Your task to perform on an android device: install app "Venmo" Image 0: 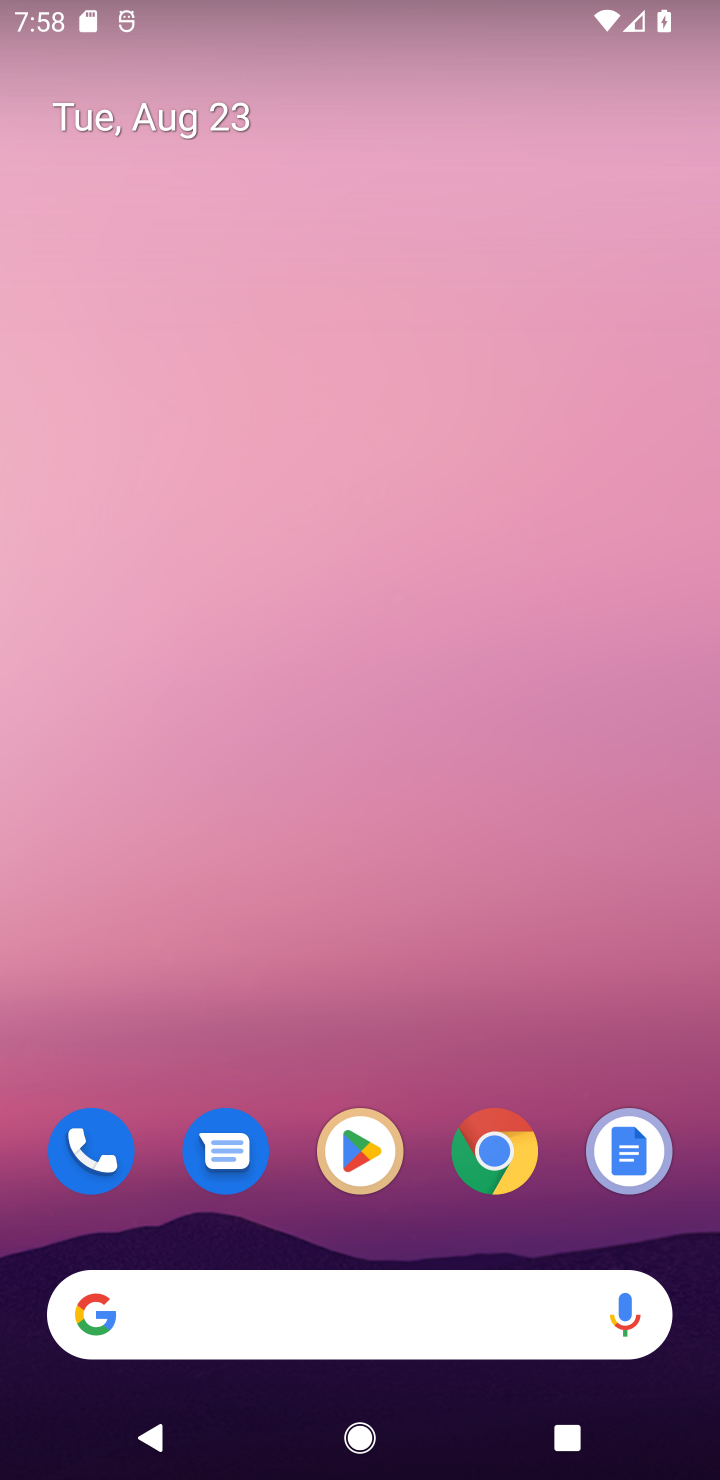
Step 0: click (365, 1149)
Your task to perform on an android device: install app "Venmo" Image 1: 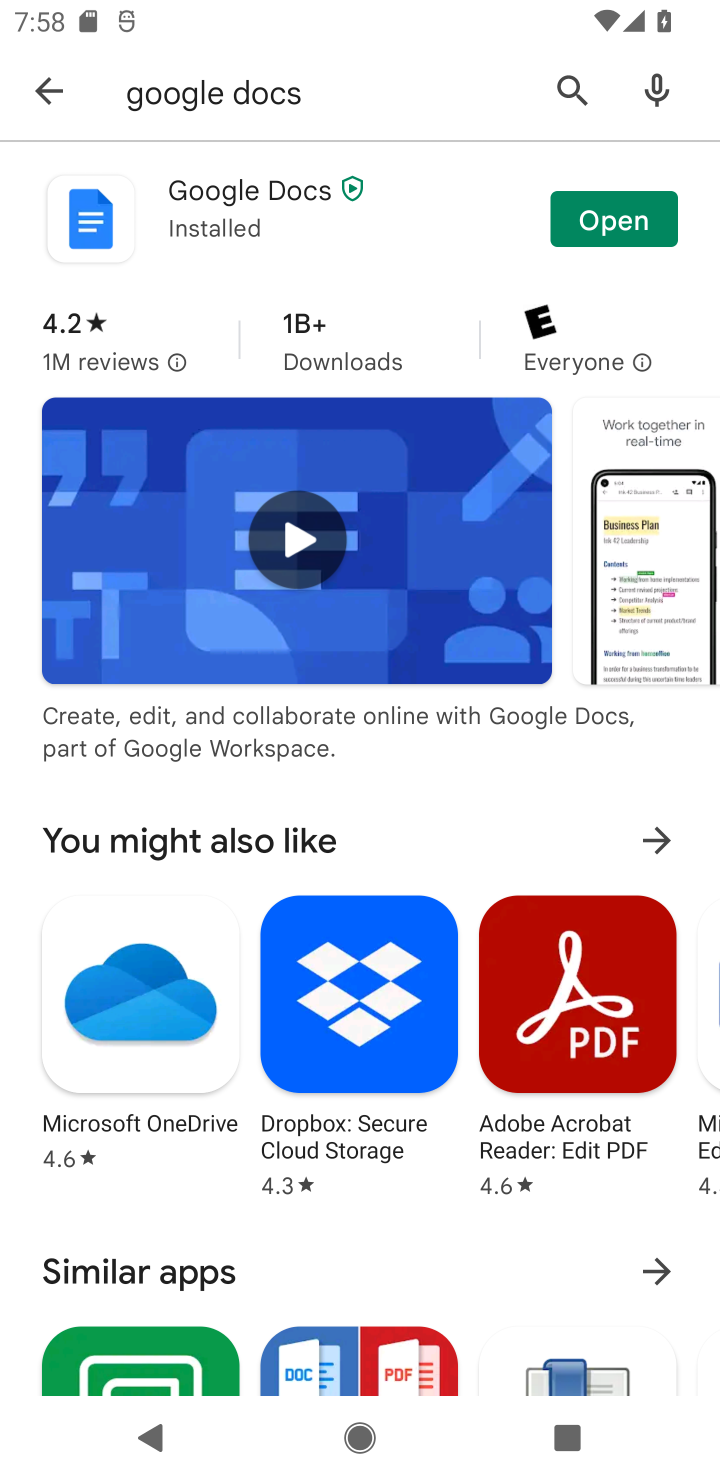
Step 1: click (576, 88)
Your task to perform on an android device: install app "Venmo" Image 2: 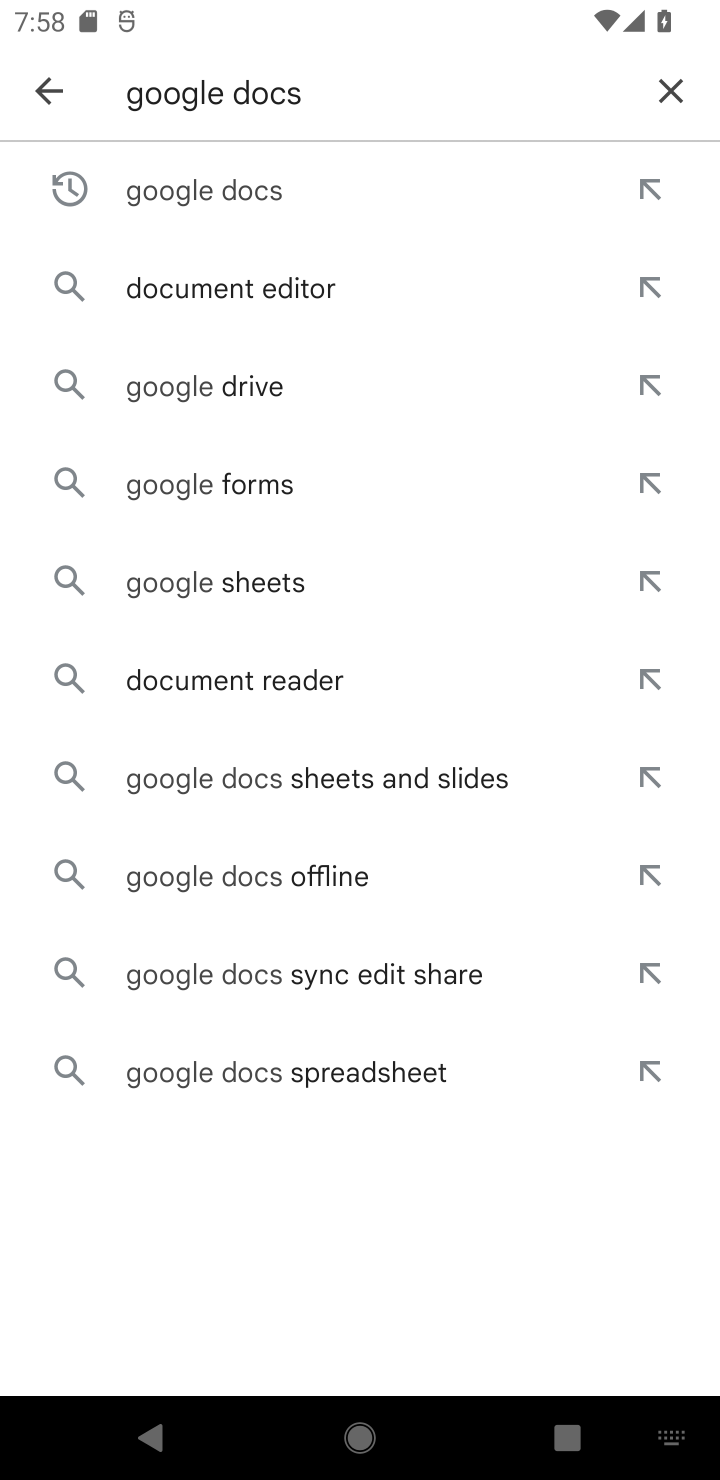
Step 2: click (670, 80)
Your task to perform on an android device: install app "Venmo" Image 3: 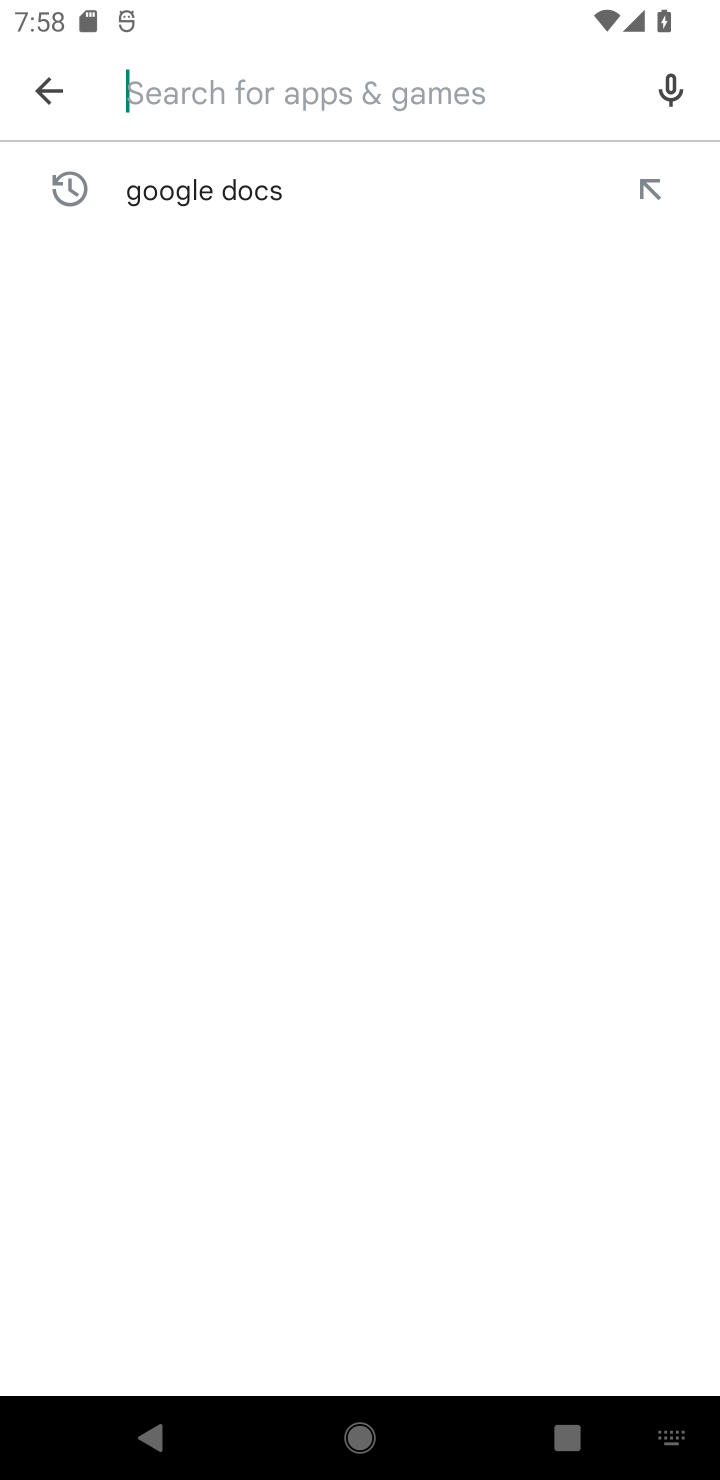
Step 3: type "Venmo"
Your task to perform on an android device: install app "Venmo" Image 4: 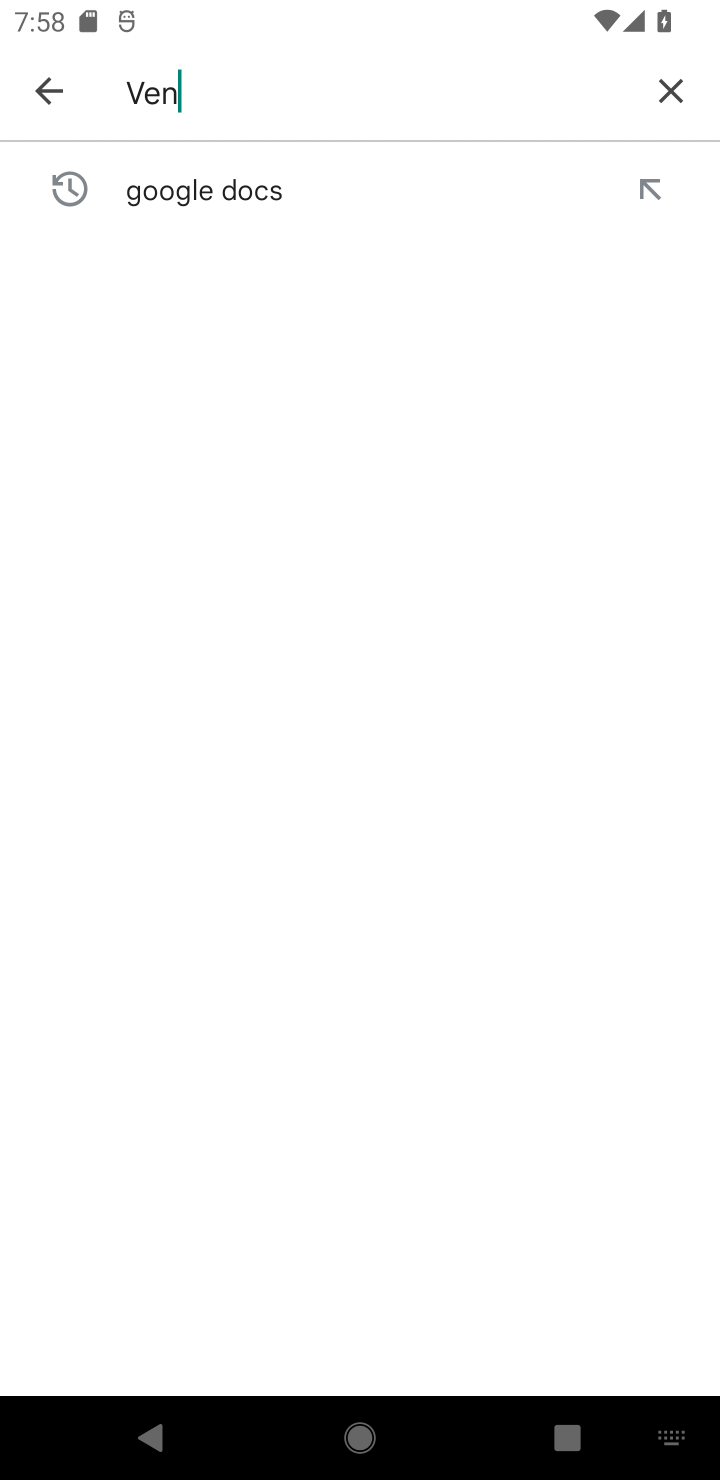
Step 4: type ""
Your task to perform on an android device: install app "Venmo" Image 5: 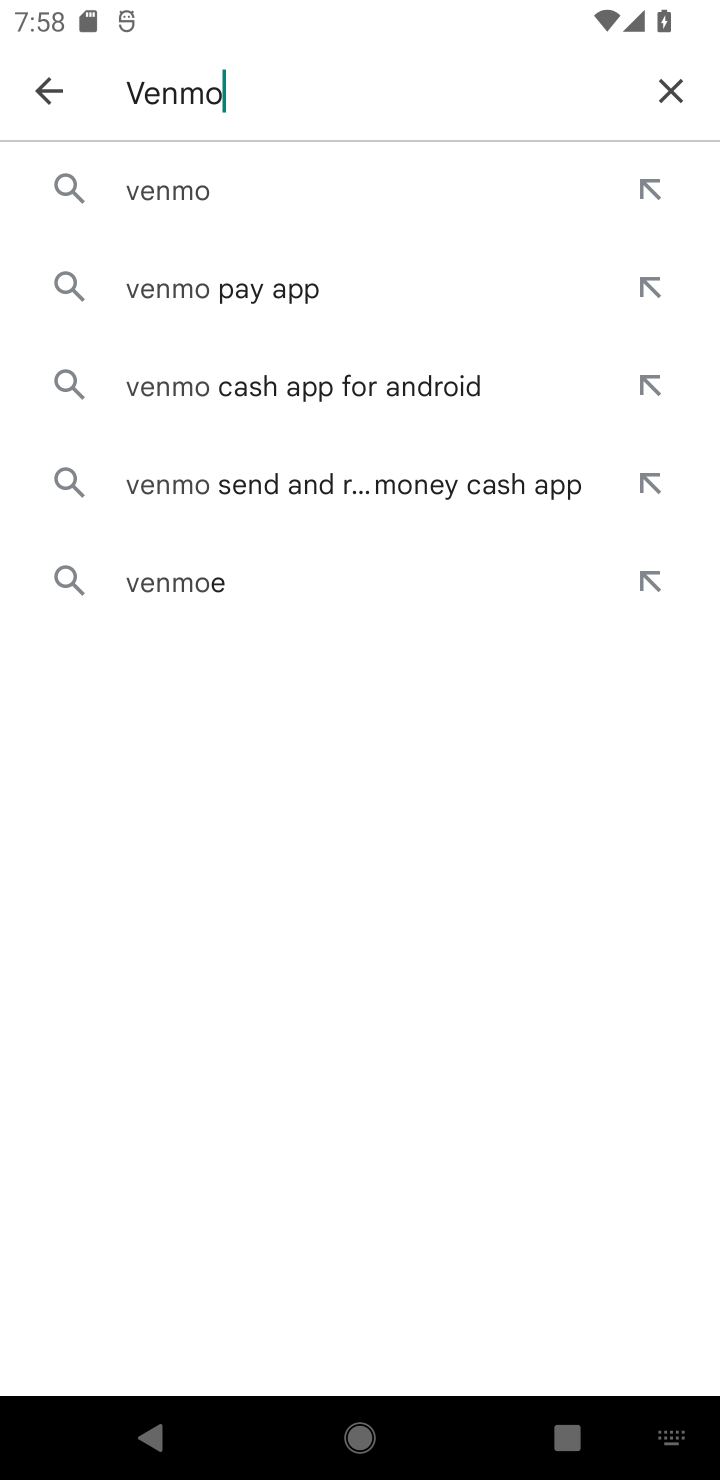
Step 5: click (175, 169)
Your task to perform on an android device: install app "Venmo" Image 6: 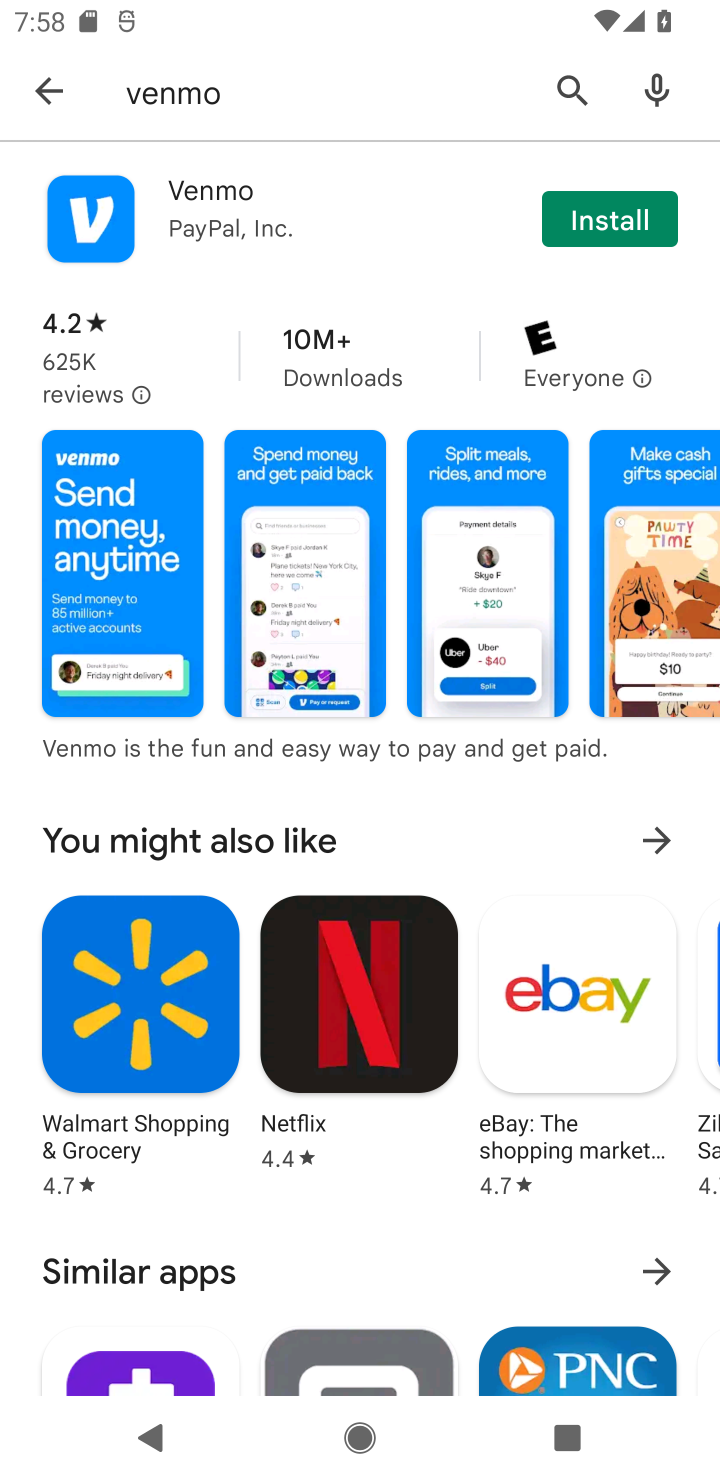
Step 6: click (626, 218)
Your task to perform on an android device: install app "Venmo" Image 7: 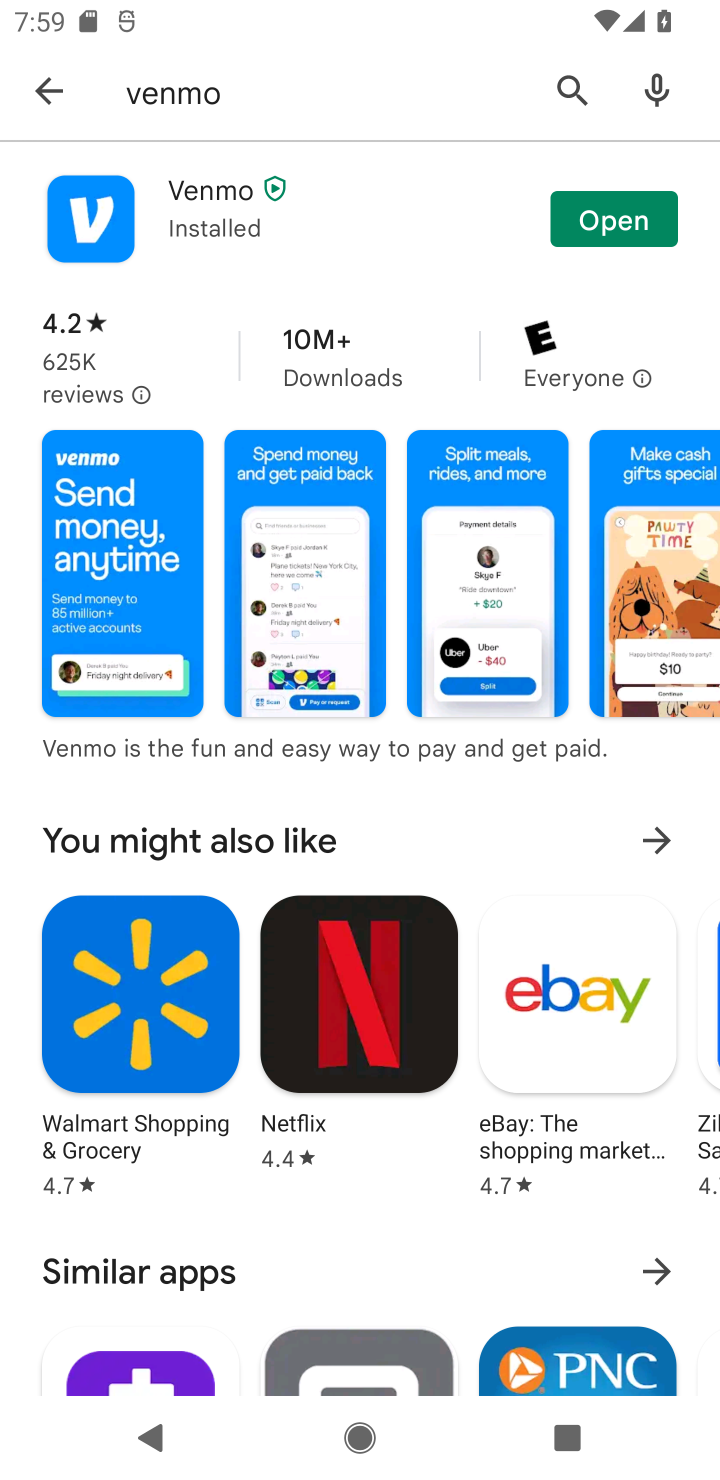
Step 7: click (604, 218)
Your task to perform on an android device: install app "Venmo" Image 8: 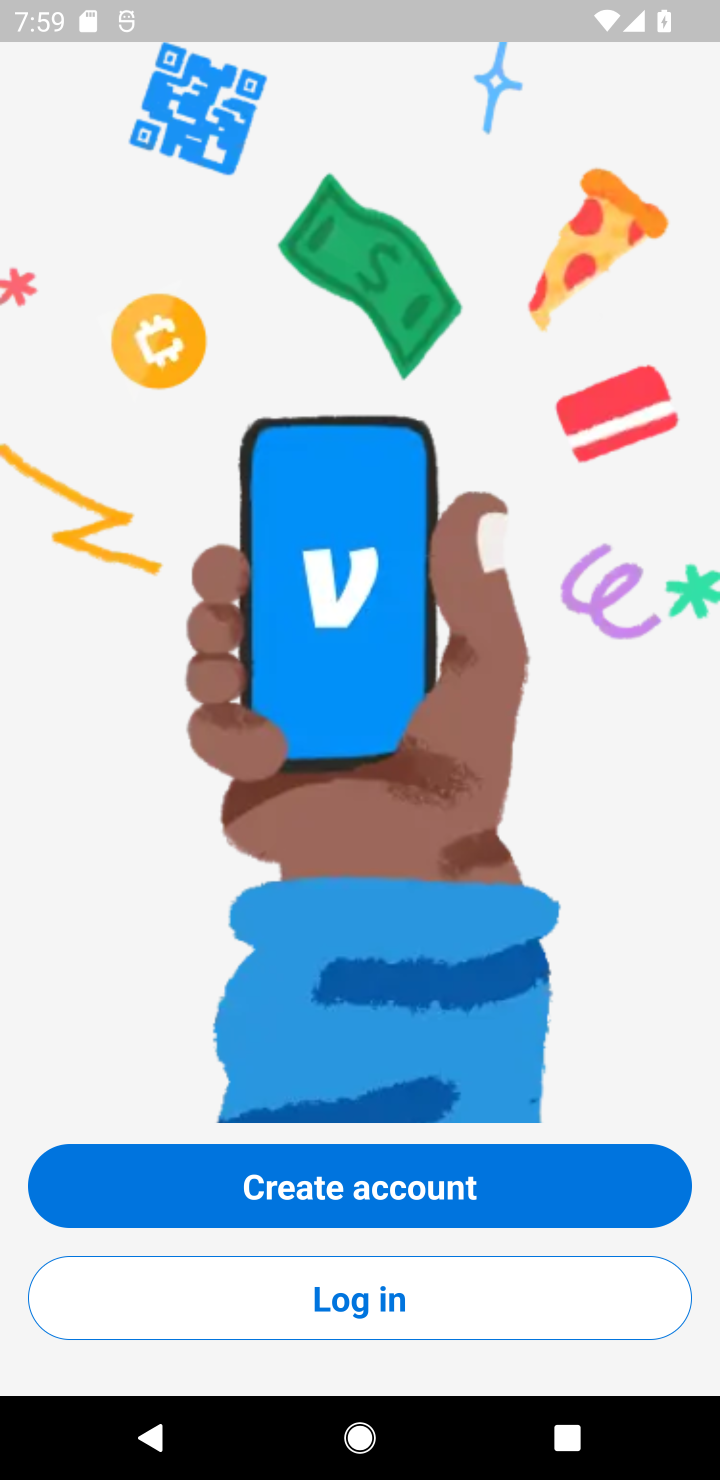
Step 8: click (352, 1286)
Your task to perform on an android device: install app "Venmo" Image 9: 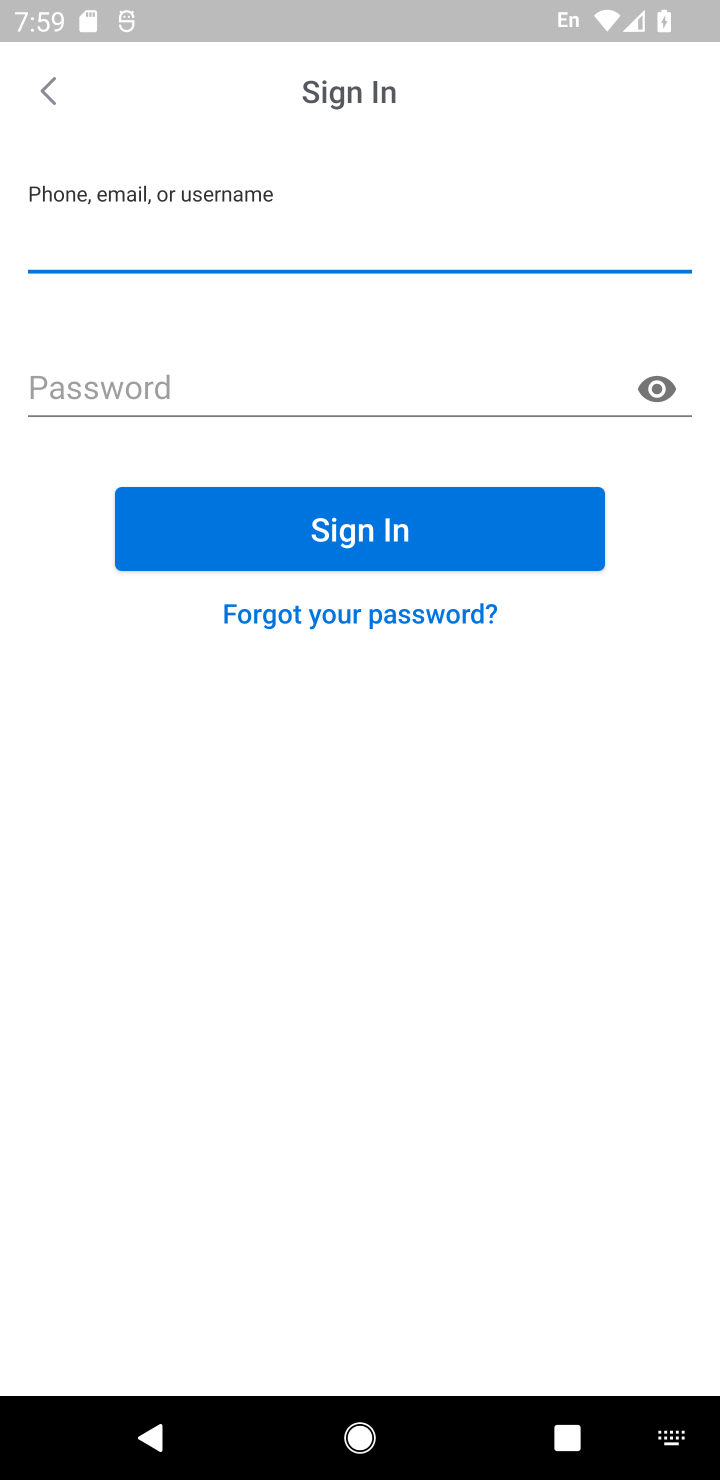
Step 9: task complete